Your task to perform on an android device: move a message to another label in the gmail app Image 0: 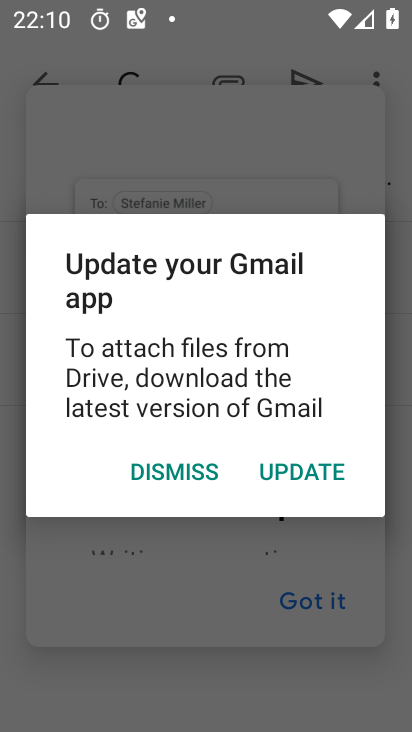
Step 0: press home button
Your task to perform on an android device: move a message to another label in the gmail app Image 1: 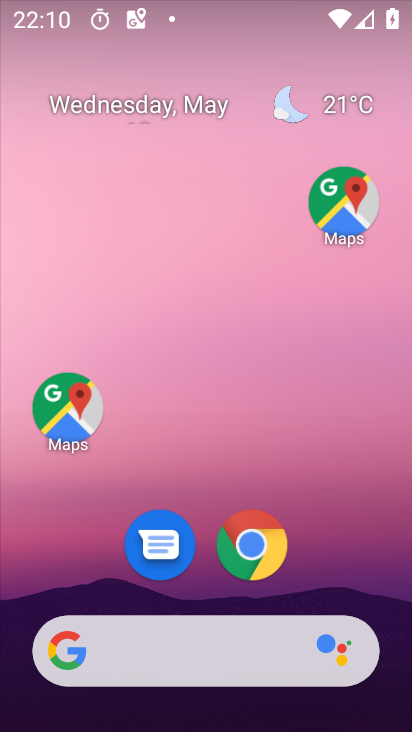
Step 1: drag from (212, 583) to (191, 106)
Your task to perform on an android device: move a message to another label in the gmail app Image 2: 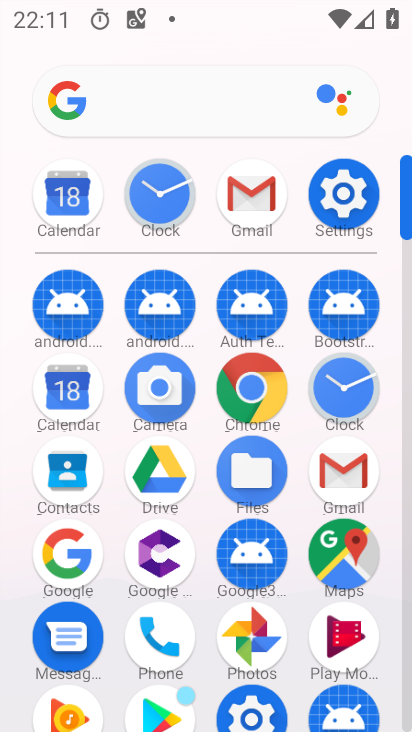
Step 2: click (342, 478)
Your task to perform on an android device: move a message to another label in the gmail app Image 3: 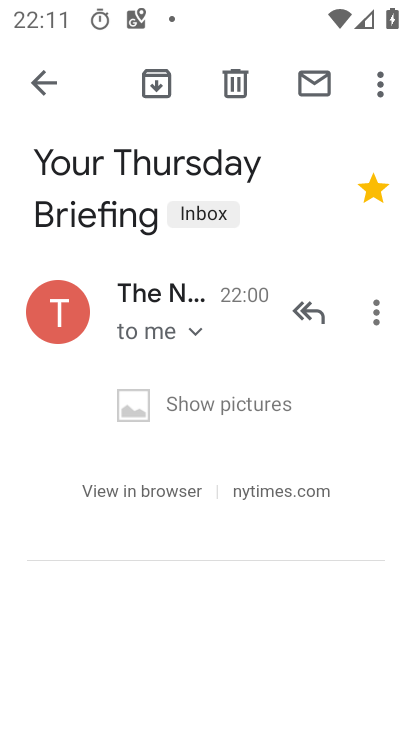
Step 3: click (194, 209)
Your task to perform on an android device: move a message to another label in the gmail app Image 4: 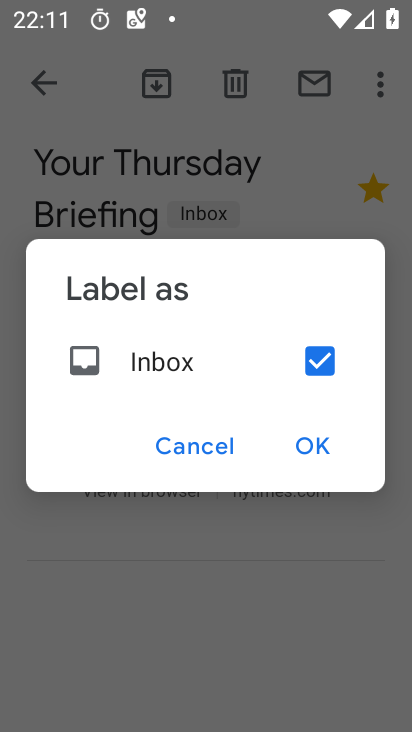
Step 4: click (300, 366)
Your task to perform on an android device: move a message to another label in the gmail app Image 5: 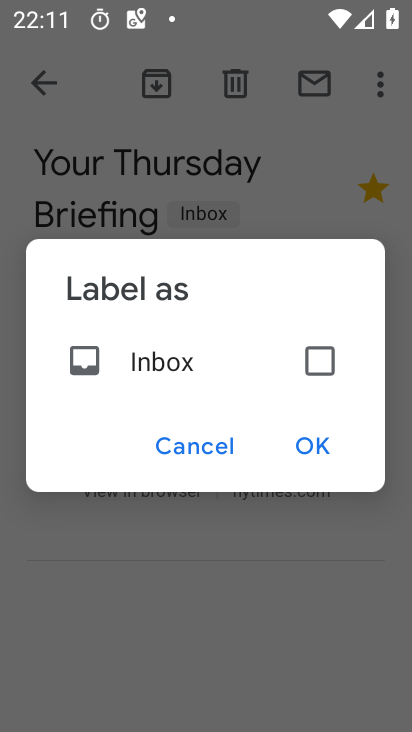
Step 5: click (318, 428)
Your task to perform on an android device: move a message to another label in the gmail app Image 6: 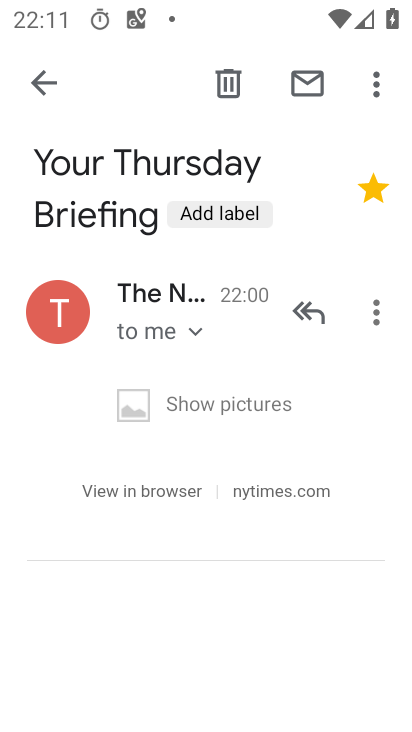
Step 6: task complete